Your task to perform on an android device: Open the calendar app, open the side menu, and click the "Day" option Image 0: 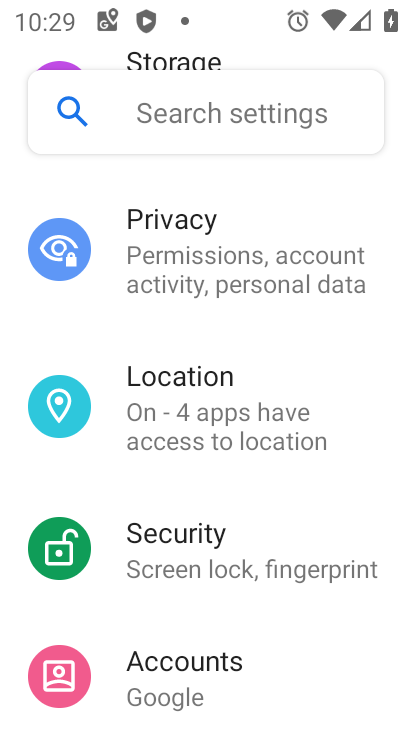
Step 0: press home button
Your task to perform on an android device: Open the calendar app, open the side menu, and click the "Day" option Image 1: 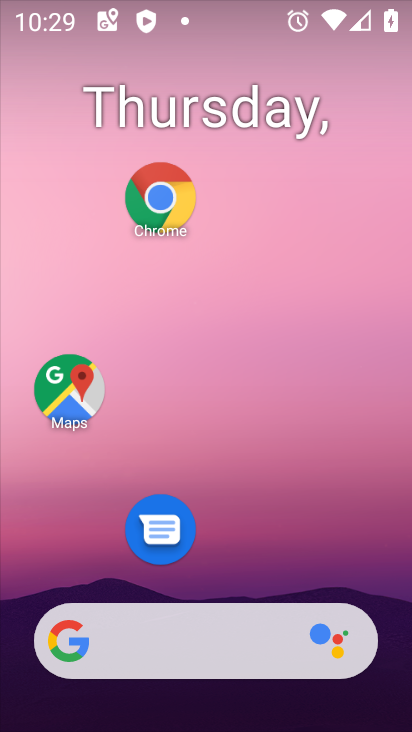
Step 1: drag from (298, 522) to (221, 139)
Your task to perform on an android device: Open the calendar app, open the side menu, and click the "Day" option Image 2: 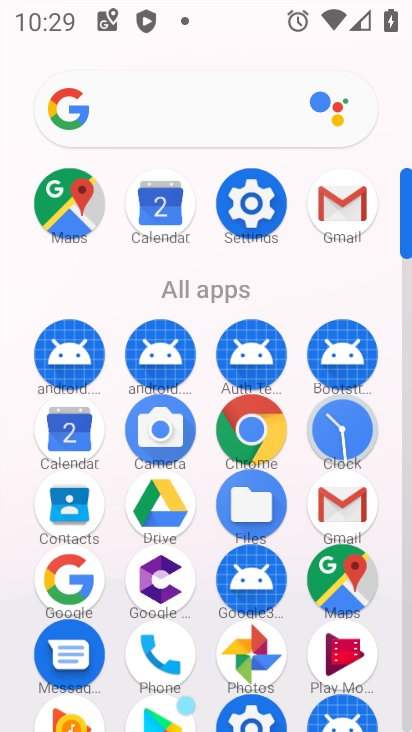
Step 2: click (67, 433)
Your task to perform on an android device: Open the calendar app, open the side menu, and click the "Day" option Image 3: 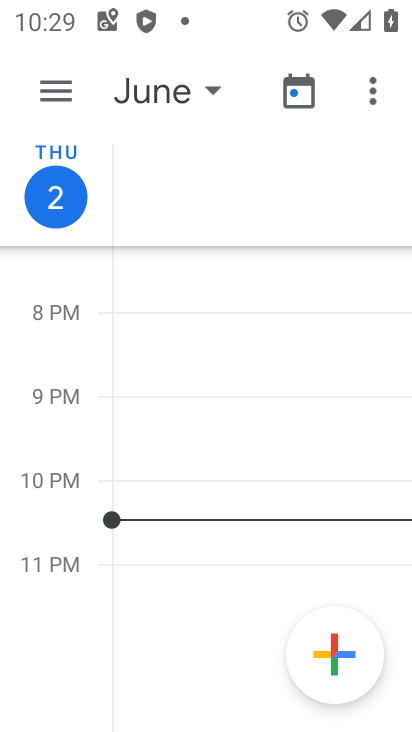
Step 3: click (60, 90)
Your task to perform on an android device: Open the calendar app, open the side menu, and click the "Day" option Image 4: 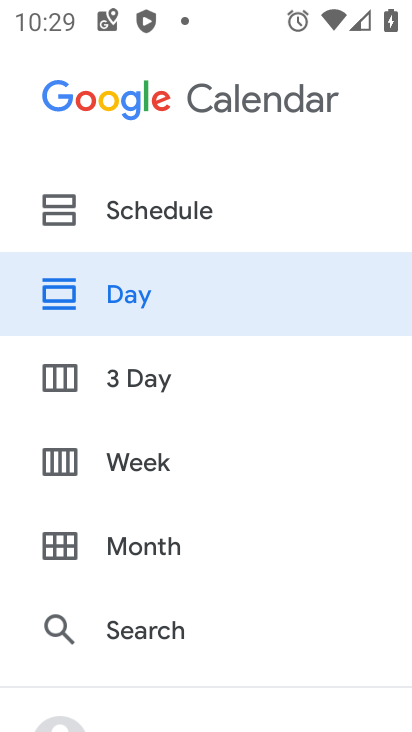
Step 4: click (135, 296)
Your task to perform on an android device: Open the calendar app, open the side menu, and click the "Day" option Image 5: 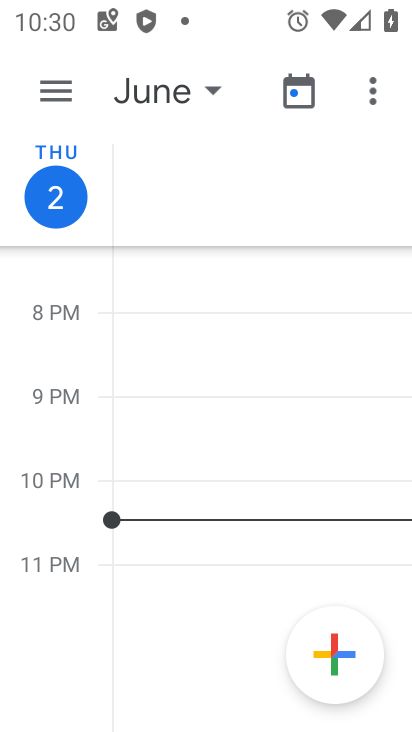
Step 5: task complete